Your task to perform on an android device: Open Chrome and go to the settings page Image 0: 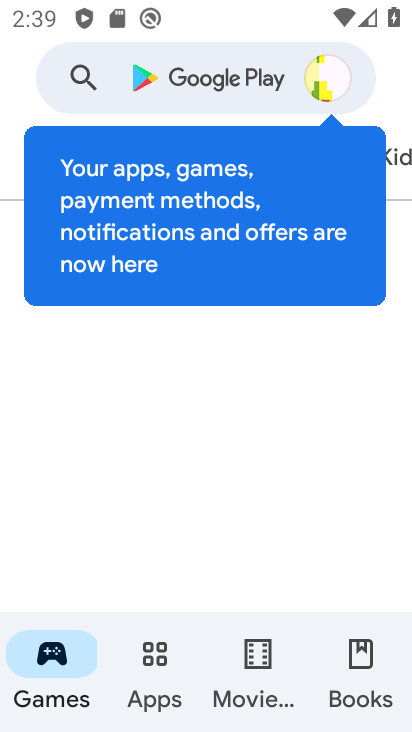
Step 0: press home button
Your task to perform on an android device: Open Chrome and go to the settings page Image 1: 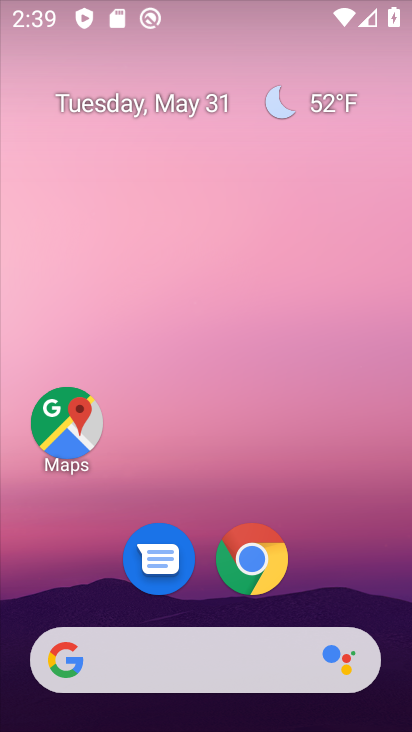
Step 1: click (271, 555)
Your task to perform on an android device: Open Chrome and go to the settings page Image 2: 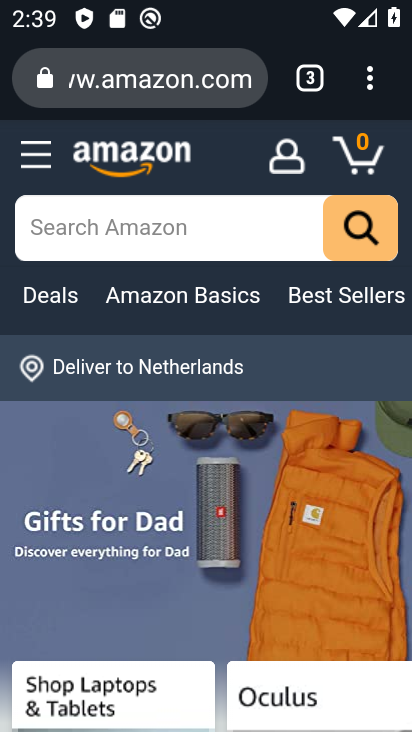
Step 2: click (366, 94)
Your task to perform on an android device: Open Chrome and go to the settings page Image 3: 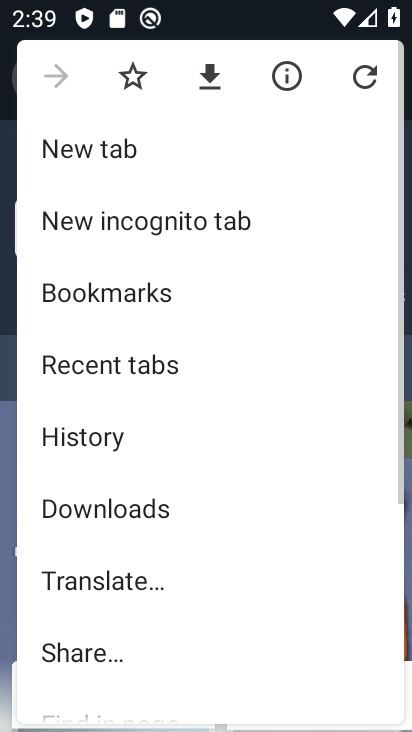
Step 3: drag from (215, 649) to (203, 222)
Your task to perform on an android device: Open Chrome and go to the settings page Image 4: 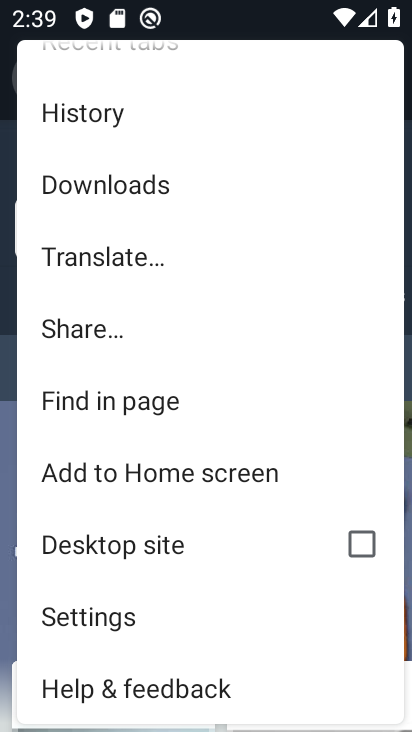
Step 4: click (132, 612)
Your task to perform on an android device: Open Chrome and go to the settings page Image 5: 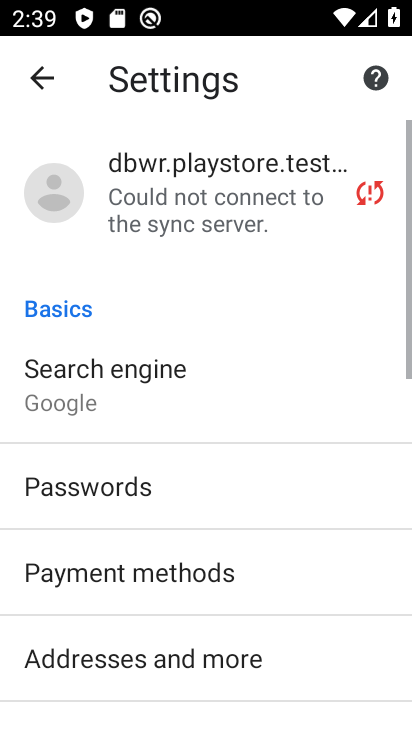
Step 5: task complete